Your task to perform on an android device: Open Google Image 0: 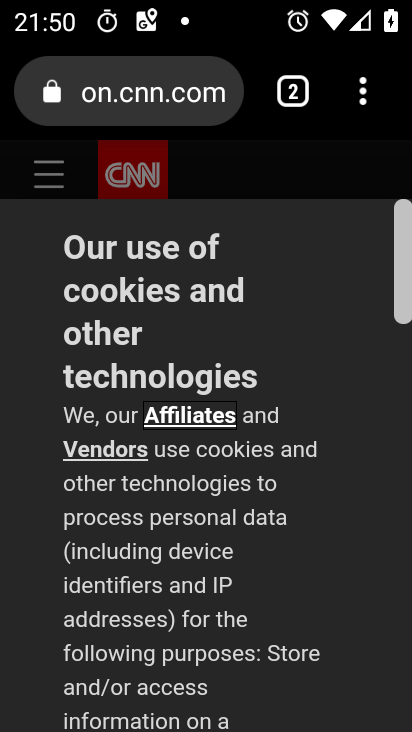
Step 0: press home button
Your task to perform on an android device: Open Google Image 1: 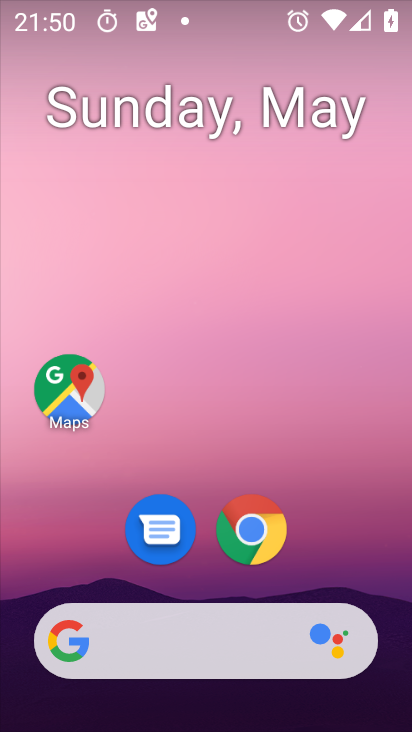
Step 1: drag from (357, 596) to (293, 8)
Your task to perform on an android device: Open Google Image 2: 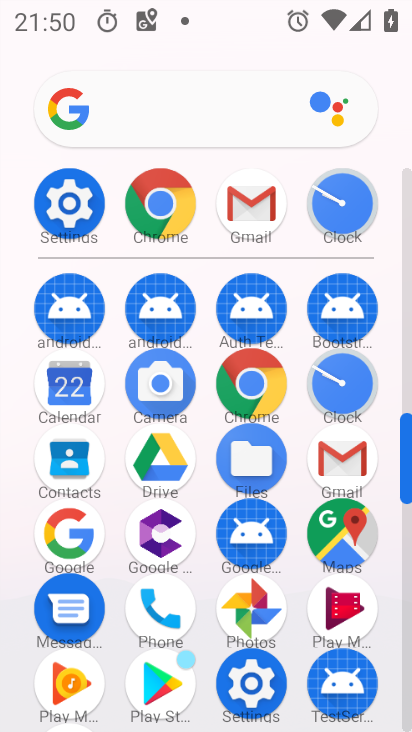
Step 2: click (69, 528)
Your task to perform on an android device: Open Google Image 3: 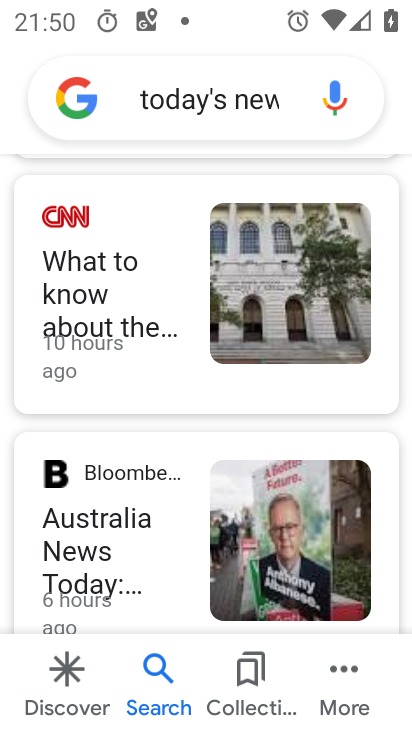
Step 3: task complete